Your task to perform on an android device: turn on translation in the chrome app Image 0: 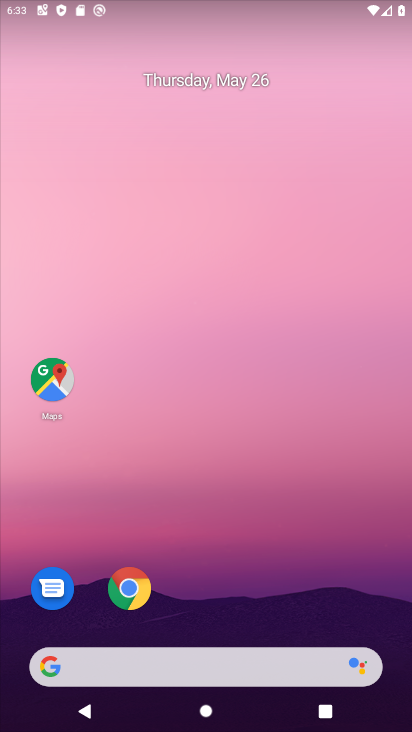
Step 0: drag from (340, 614) to (245, 5)
Your task to perform on an android device: turn on translation in the chrome app Image 1: 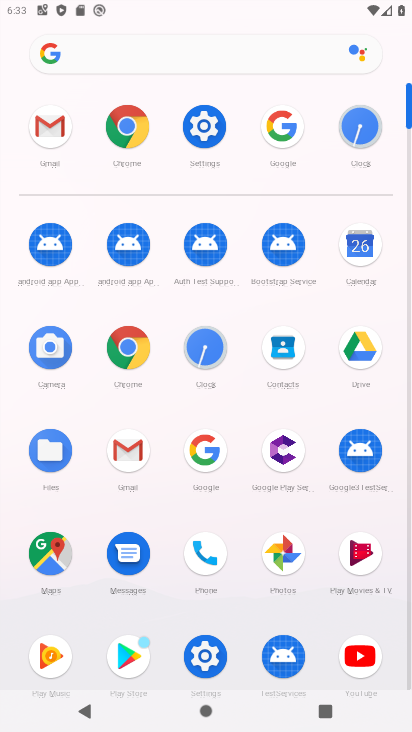
Step 1: click (108, 329)
Your task to perform on an android device: turn on translation in the chrome app Image 2: 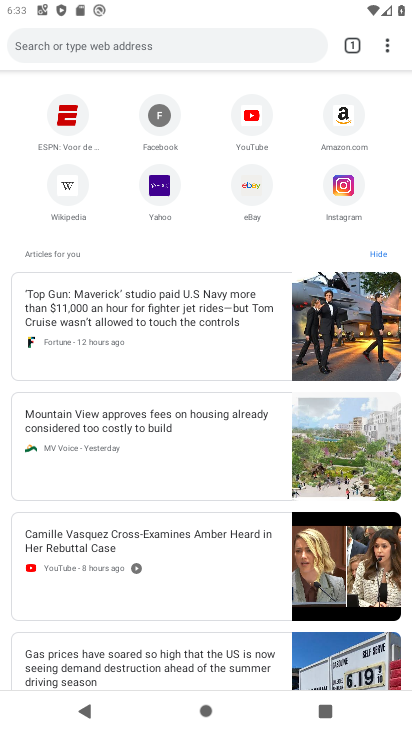
Step 2: click (387, 45)
Your task to perform on an android device: turn on translation in the chrome app Image 3: 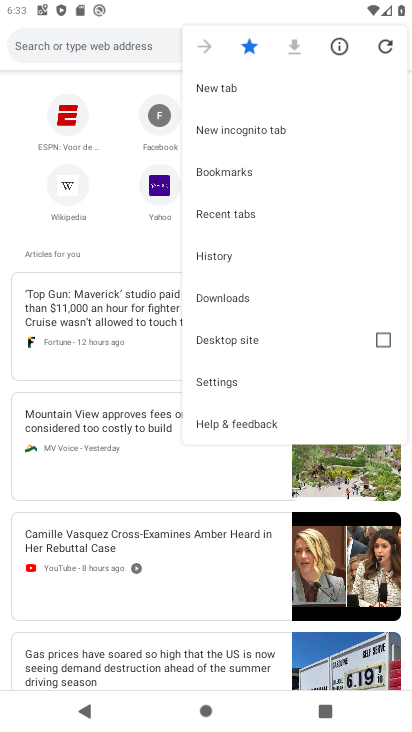
Step 3: click (226, 374)
Your task to perform on an android device: turn on translation in the chrome app Image 4: 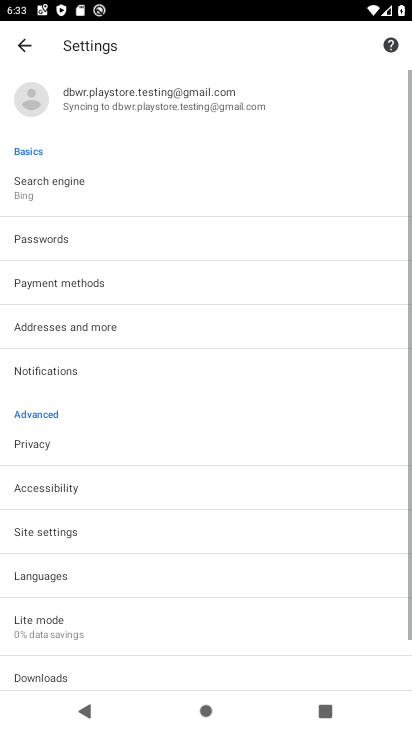
Step 4: drag from (122, 656) to (182, 258)
Your task to perform on an android device: turn on translation in the chrome app Image 5: 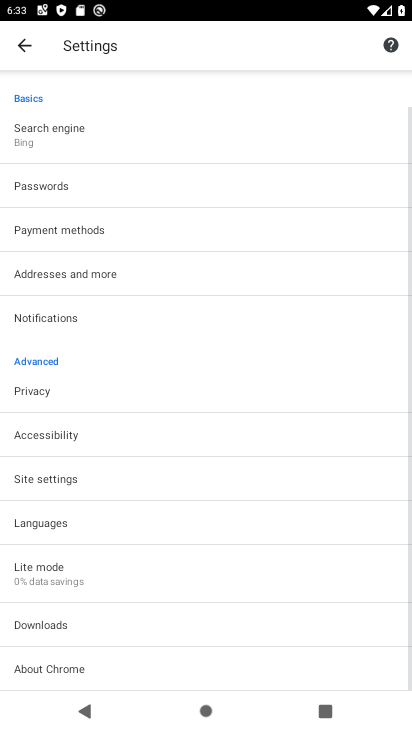
Step 5: click (54, 523)
Your task to perform on an android device: turn on translation in the chrome app Image 6: 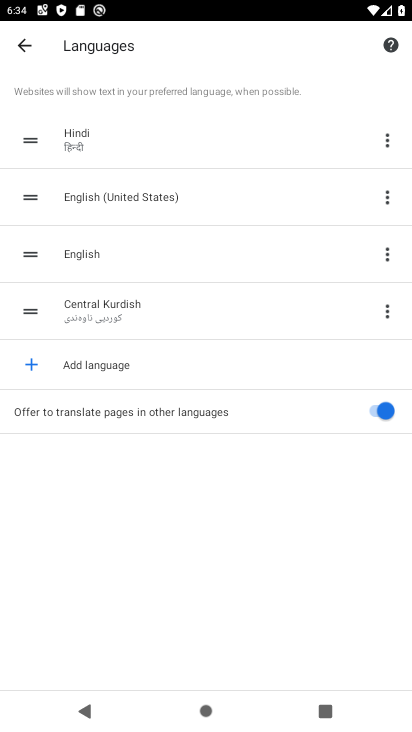
Step 6: task complete